Your task to perform on an android device: Open Maps and search for coffee Image 0: 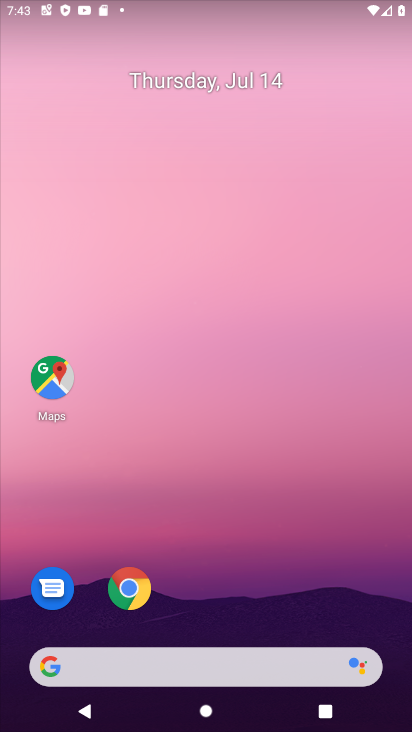
Step 0: drag from (380, 634) to (211, 28)
Your task to perform on an android device: Open Maps and search for coffee Image 1: 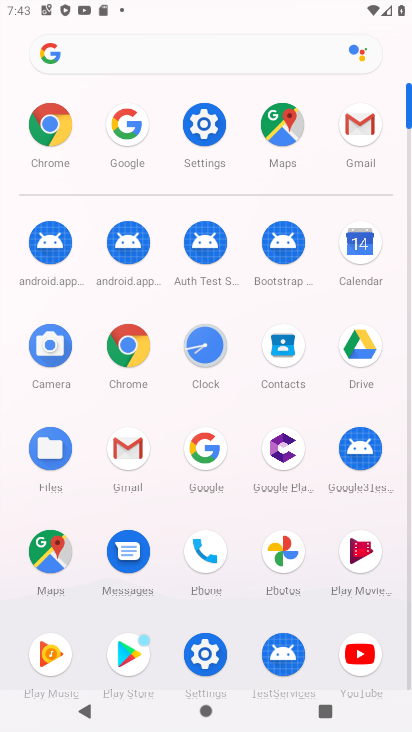
Step 1: click (58, 549)
Your task to perform on an android device: Open Maps and search for coffee Image 2: 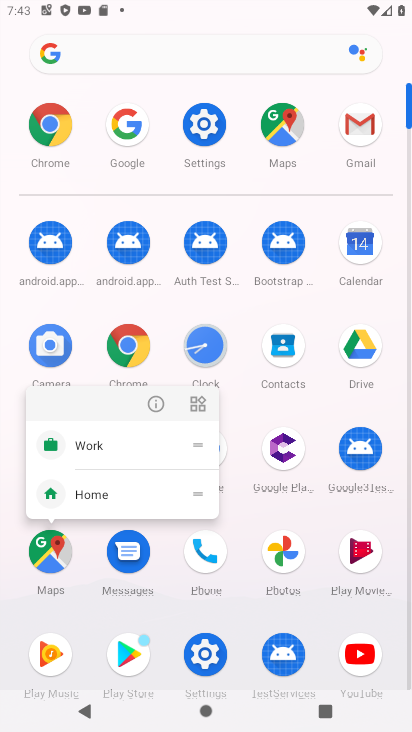
Step 2: click (58, 549)
Your task to perform on an android device: Open Maps and search for coffee Image 3: 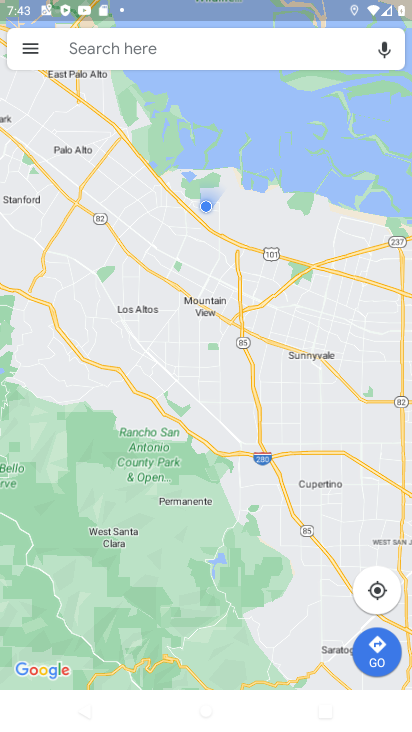
Step 3: click (116, 42)
Your task to perform on an android device: Open Maps and search for coffee Image 4: 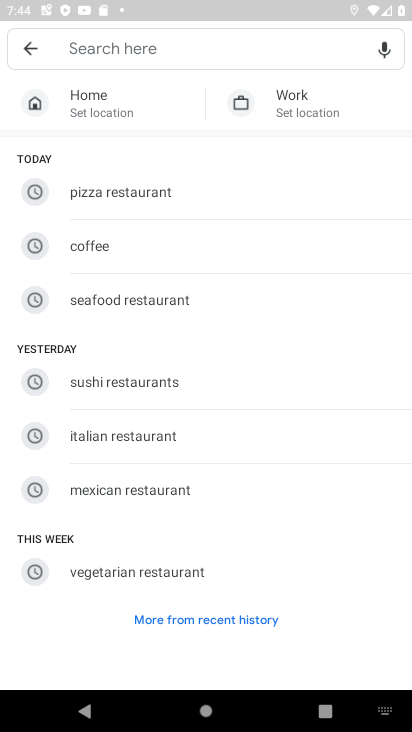
Step 4: click (107, 254)
Your task to perform on an android device: Open Maps and search for coffee Image 5: 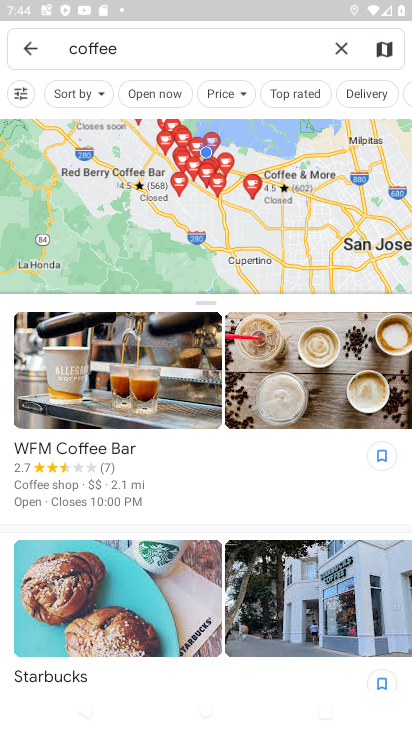
Step 5: task complete